Your task to perform on an android device: Go to battery settings Image 0: 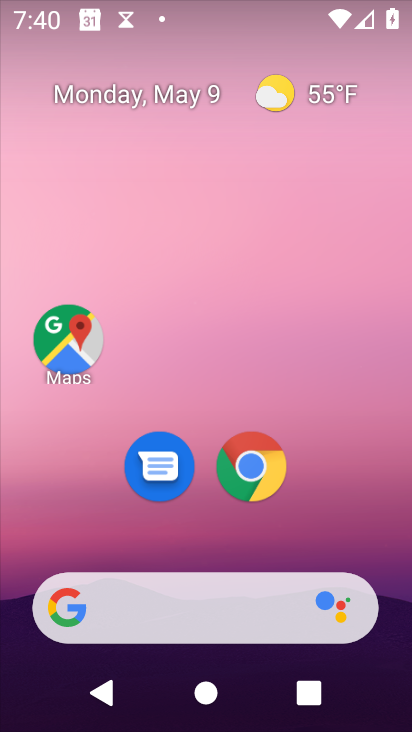
Step 0: drag from (367, 484) to (396, 671)
Your task to perform on an android device: Go to battery settings Image 1: 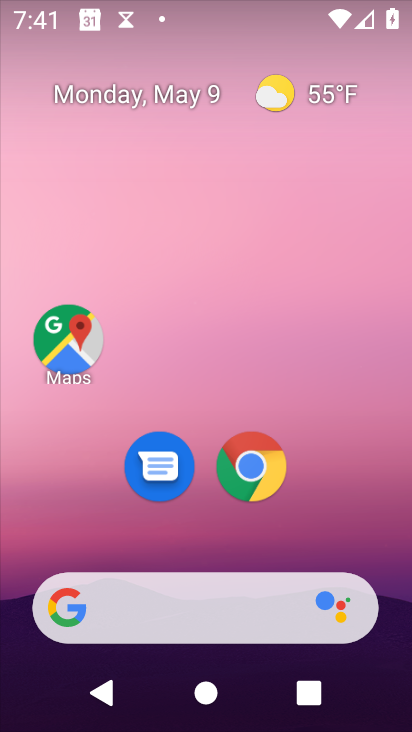
Step 1: click (342, 239)
Your task to perform on an android device: Go to battery settings Image 2: 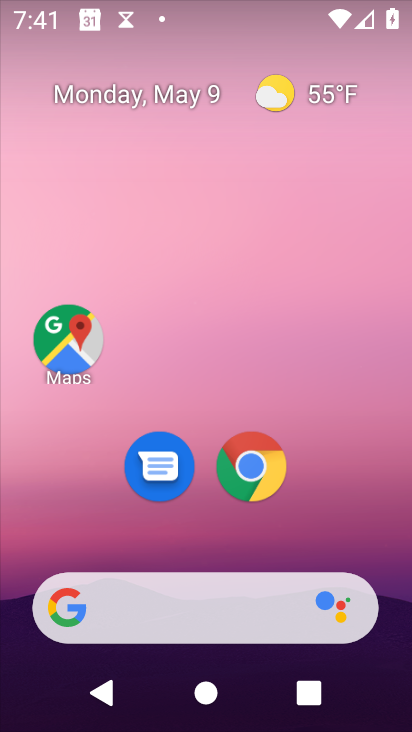
Step 2: drag from (185, 86) to (226, 109)
Your task to perform on an android device: Go to battery settings Image 3: 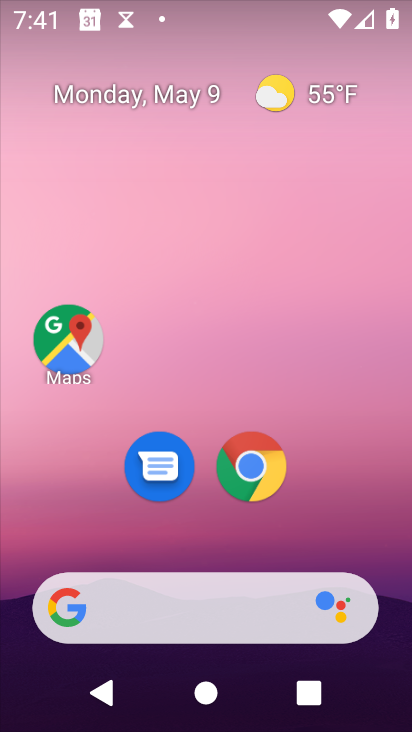
Step 3: drag from (252, 233) to (179, 52)
Your task to perform on an android device: Go to battery settings Image 4: 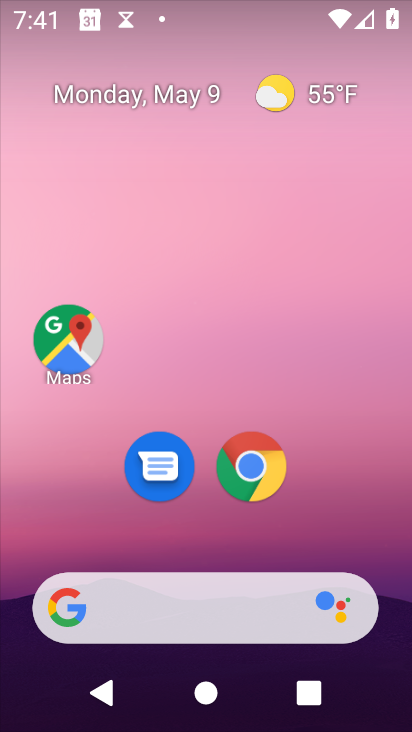
Step 4: drag from (325, 429) to (161, 37)
Your task to perform on an android device: Go to battery settings Image 5: 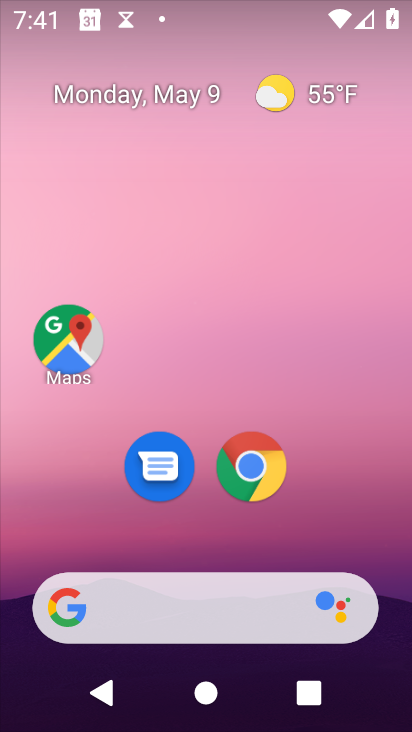
Step 5: drag from (277, 309) to (256, 101)
Your task to perform on an android device: Go to battery settings Image 6: 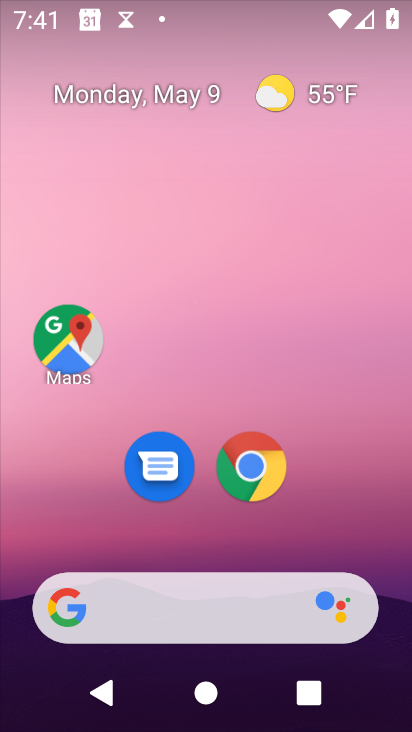
Step 6: drag from (336, 358) to (309, 121)
Your task to perform on an android device: Go to battery settings Image 7: 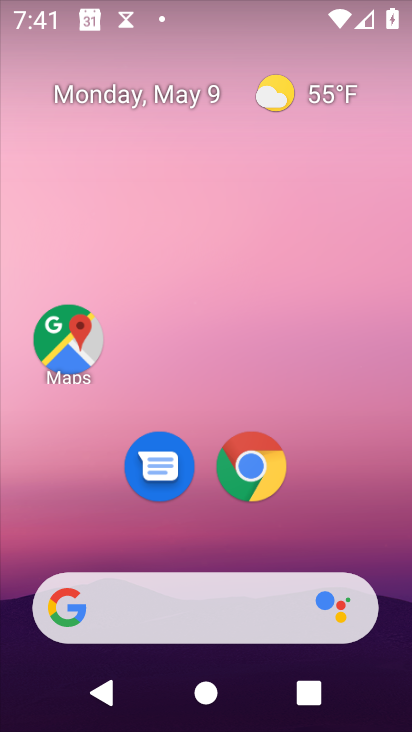
Step 7: drag from (331, 505) to (237, 172)
Your task to perform on an android device: Go to battery settings Image 8: 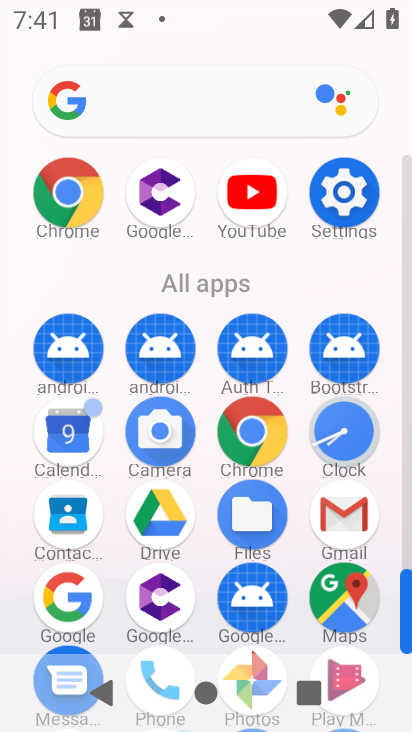
Step 8: click (349, 194)
Your task to perform on an android device: Go to battery settings Image 9: 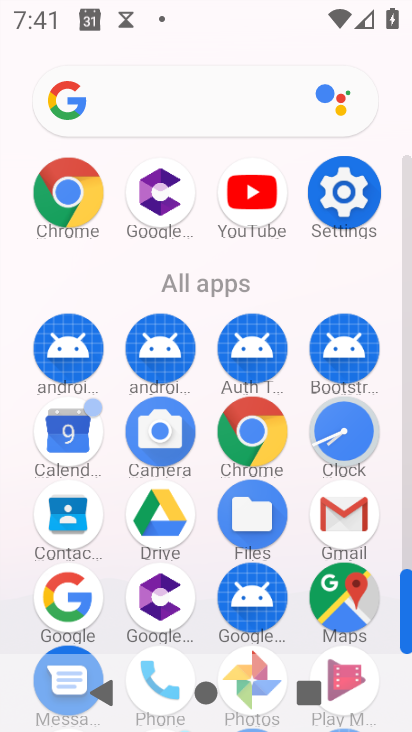
Step 9: click (349, 194)
Your task to perform on an android device: Go to battery settings Image 10: 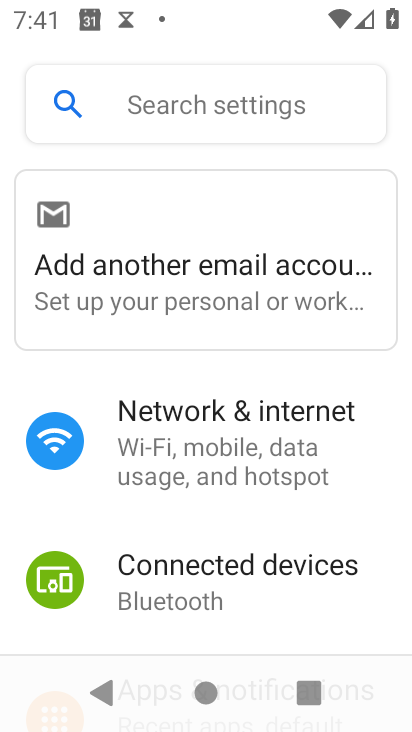
Step 10: drag from (188, 525) to (197, 228)
Your task to perform on an android device: Go to battery settings Image 11: 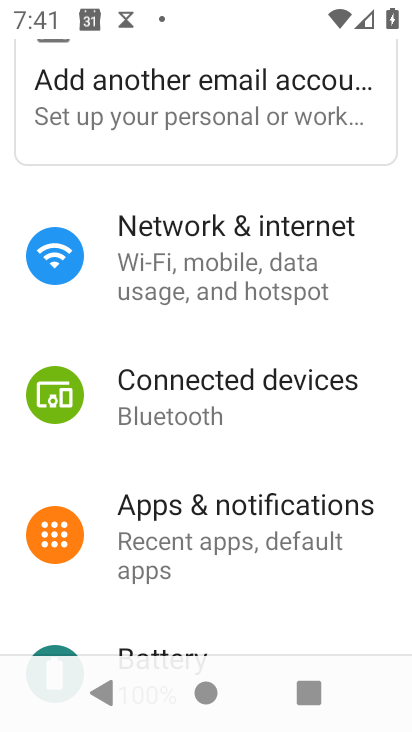
Step 11: drag from (204, 490) to (203, 338)
Your task to perform on an android device: Go to battery settings Image 12: 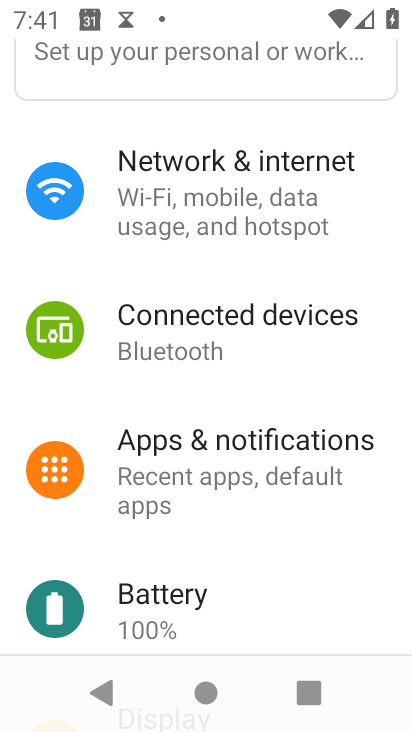
Step 12: drag from (194, 536) to (206, 259)
Your task to perform on an android device: Go to battery settings Image 13: 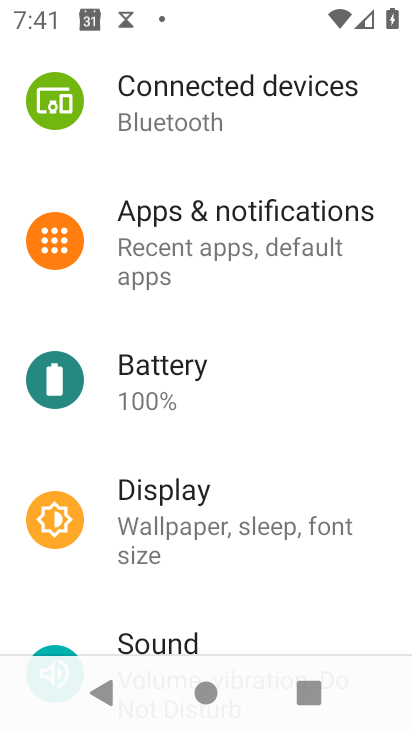
Step 13: drag from (247, 371) to (265, 233)
Your task to perform on an android device: Go to battery settings Image 14: 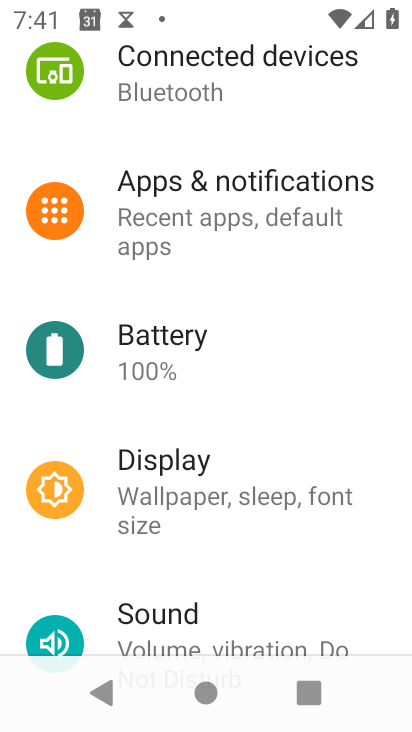
Step 14: drag from (234, 466) to (244, 196)
Your task to perform on an android device: Go to battery settings Image 15: 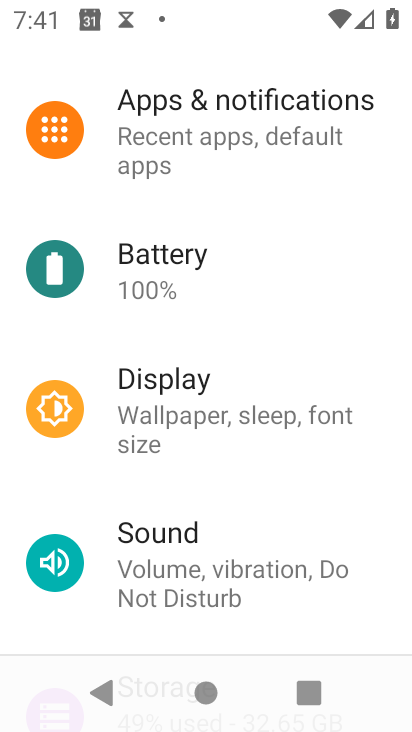
Step 15: drag from (177, 445) to (191, 172)
Your task to perform on an android device: Go to battery settings Image 16: 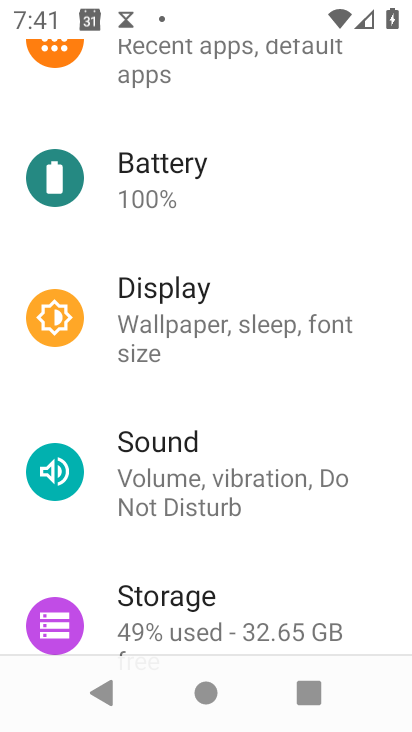
Step 16: drag from (142, 520) to (163, 98)
Your task to perform on an android device: Go to battery settings Image 17: 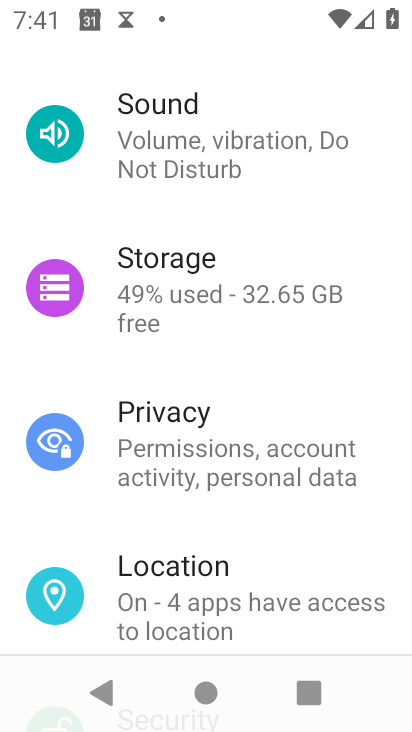
Step 17: drag from (179, 426) to (138, 54)
Your task to perform on an android device: Go to battery settings Image 18: 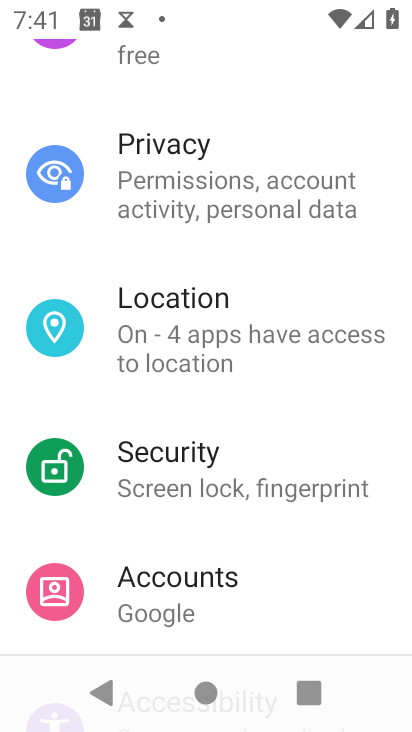
Step 18: drag from (211, 372) to (202, 84)
Your task to perform on an android device: Go to battery settings Image 19: 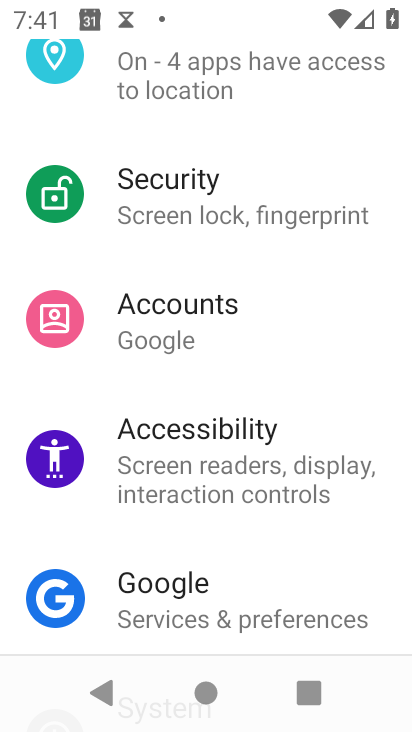
Step 19: drag from (188, 452) to (236, 124)
Your task to perform on an android device: Go to battery settings Image 20: 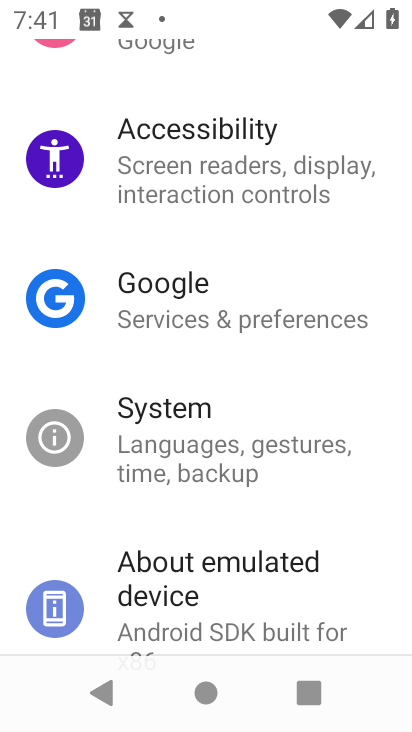
Step 20: drag from (154, 255) to (197, 534)
Your task to perform on an android device: Go to battery settings Image 21: 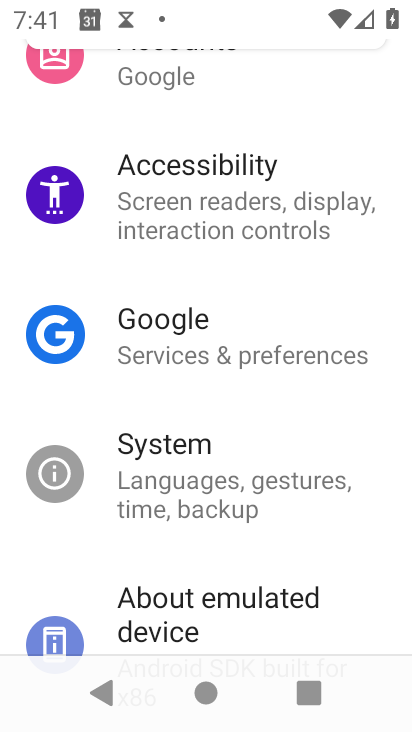
Step 21: drag from (167, 267) to (210, 562)
Your task to perform on an android device: Go to battery settings Image 22: 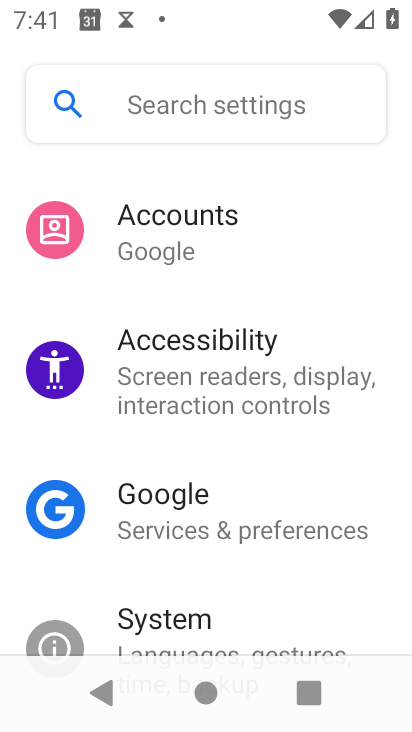
Step 22: drag from (197, 244) to (246, 551)
Your task to perform on an android device: Go to battery settings Image 23: 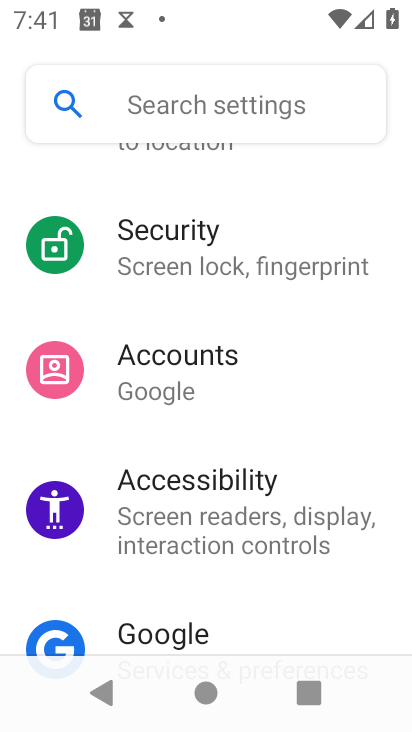
Step 23: drag from (181, 300) to (220, 553)
Your task to perform on an android device: Go to battery settings Image 24: 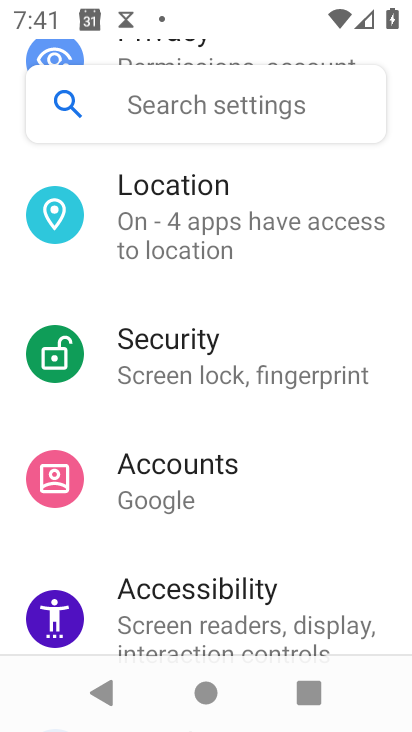
Step 24: drag from (171, 328) to (230, 643)
Your task to perform on an android device: Go to battery settings Image 25: 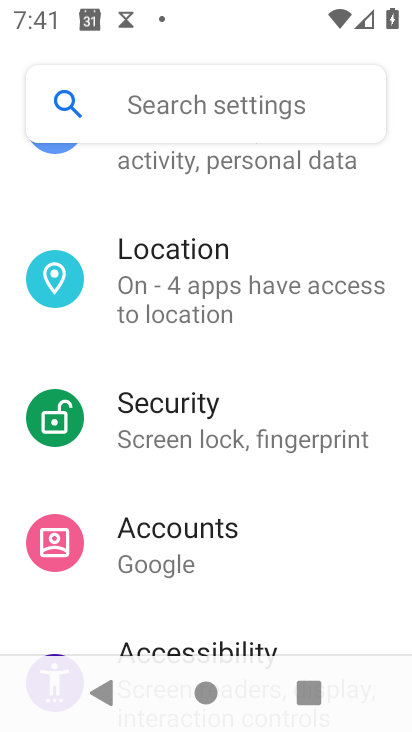
Step 25: drag from (181, 397) to (208, 582)
Your task to perform on an android device: Go to battery settings Image 26: 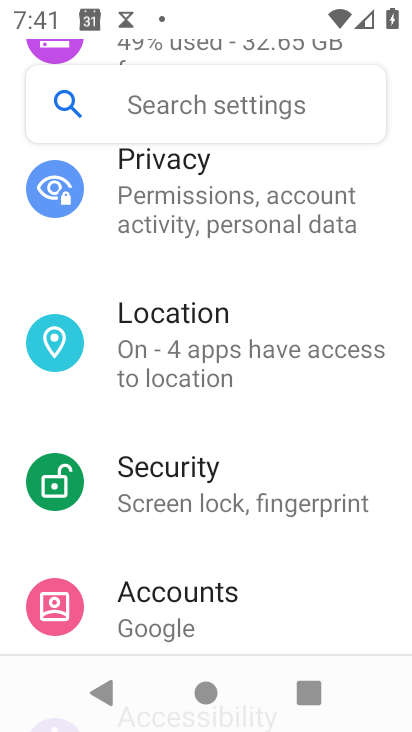
Step 26: drag from (224, 466) to (250, 599)
Your task to perform on an android device: Go to battery settings Image 27: 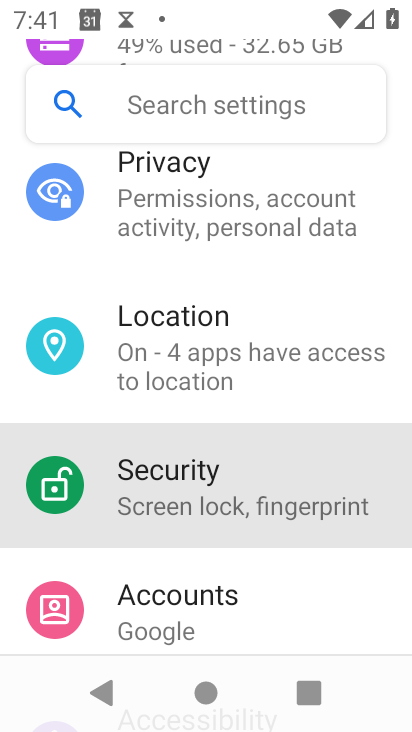
Step 27: drag from (184, 185) to (243, 503)
Your task to perform on an android device: Go to battery settings Image 28: 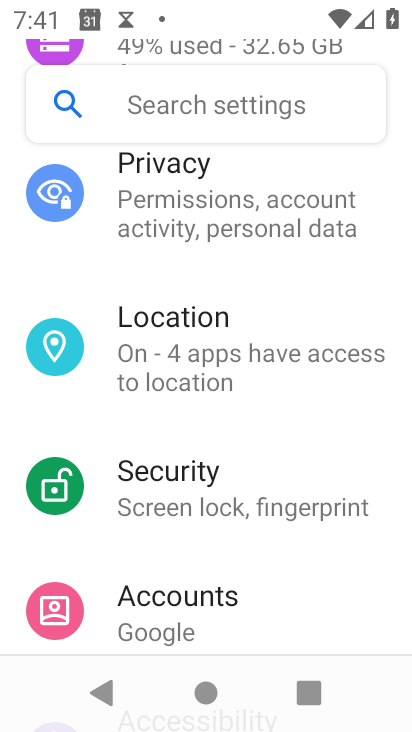
Step 28: drag from (213, 279) to (254, 632)
Your task to perform on an android device: Go to battery settings Image 29: 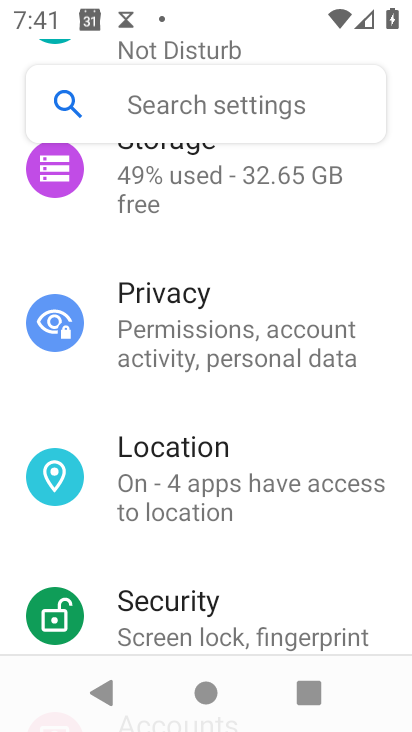
Step 29: drag from (140, 268) to (203, 635)
Your task to perform on an android device: Go to battery settings Image 30: 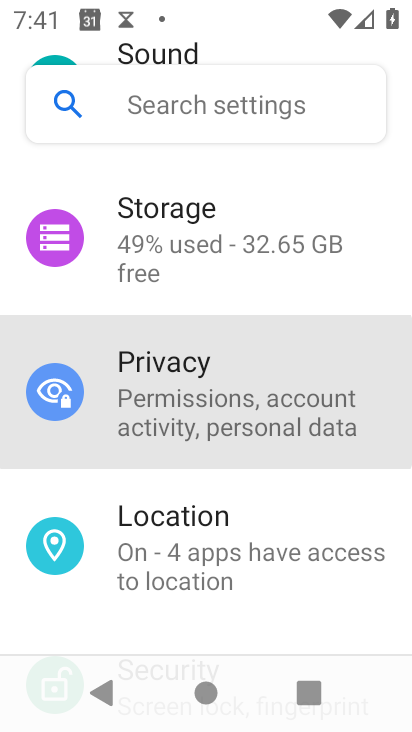
Step 30: drag from (189, 333) to (235, 568)
Your task to perform on an android device: Go to battery settings Image 31: 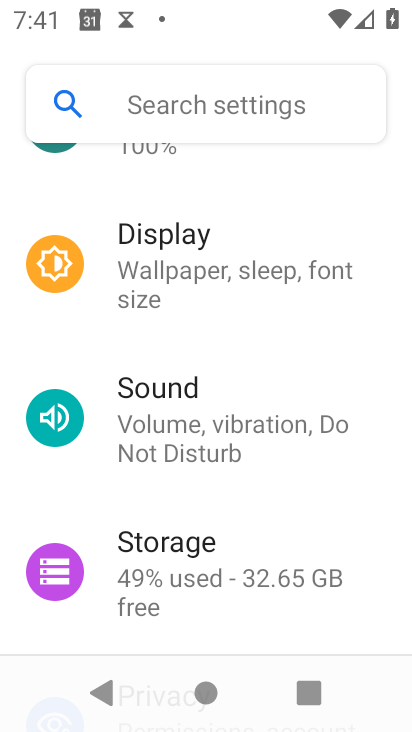
Step 31: drag from (216, 407) to (229, 636)
Your task to perform on an android device: Go to battery settings Image 32: 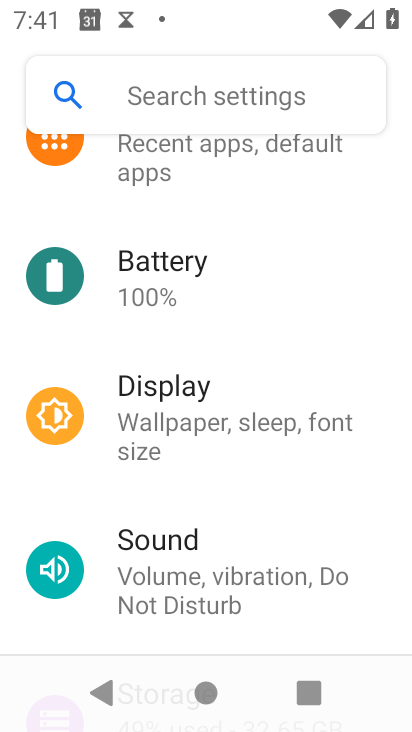
Step 32: drag from (164, 343) to (211, 555)
Your task to perform on an android device: Go to battery settings Image 33: 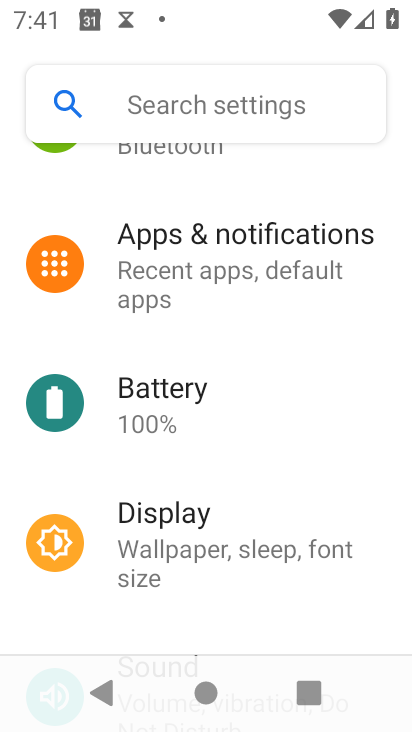
Step 33: drag from (194, 332) to (257, 617)
Your task to perform on an android device: Go to battery settings Image 34: 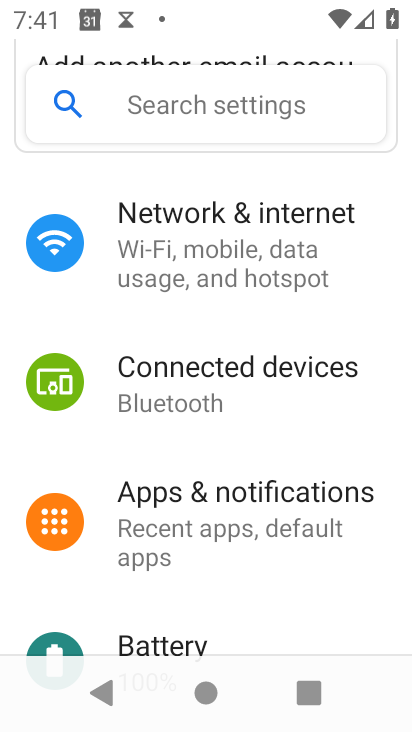
Step 34: drag from (171, 610) to (130, 343)
Your task to perform on an android device: Go to battery settings Image 35: 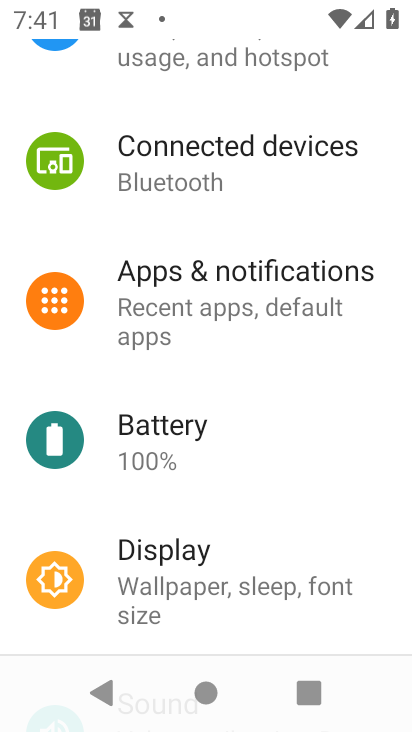
Step 35: click (159, 437)
Your task to perform on an android device: Go to battery settings Image 36: 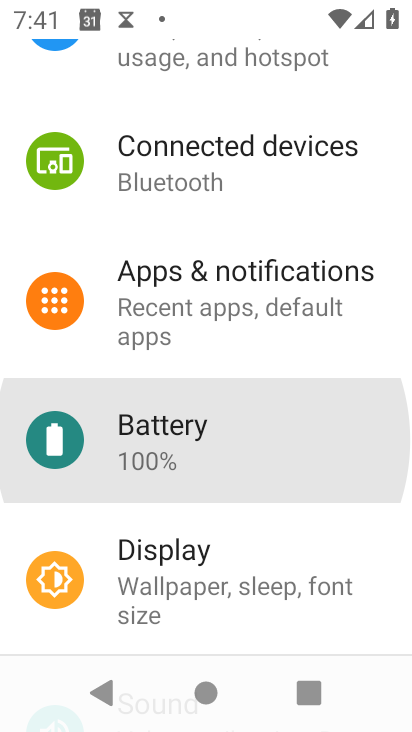
Step 36: click (160, 429)
Your task to perform on an android device: Go to battery settings Image 37: 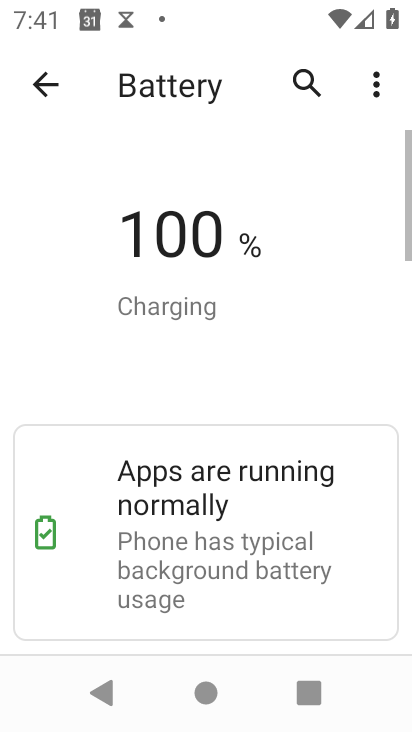
Step 37: task complete